Your task to perform on an android device: What's the weather going to be this weekend? Image 0: 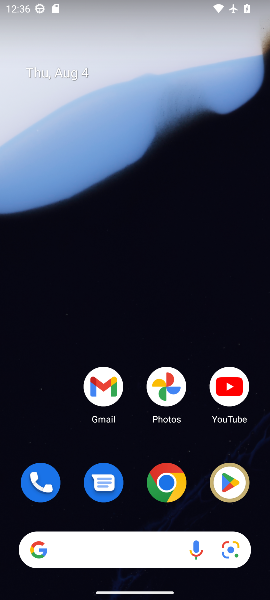
Step 0: drag from (133, 453) to (133, 74)
Your task to perform on an android device: What's the weather going to be this weekend? Image 1: 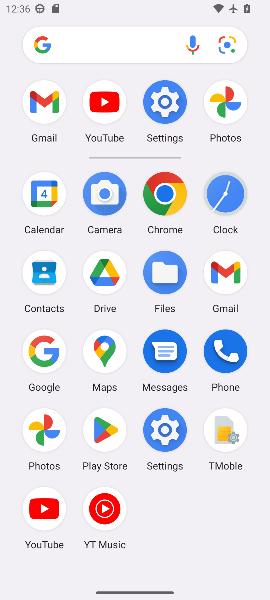
Step 1: click (49, 338)
Your task to perform on an android device: What's the weather going to be this weekend? Image 2: 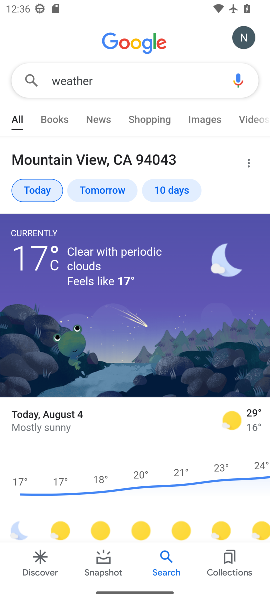
Step 2: click (166, 191)
Your task to perform on an android device: What's the weather going to be this weekend? Image 3: 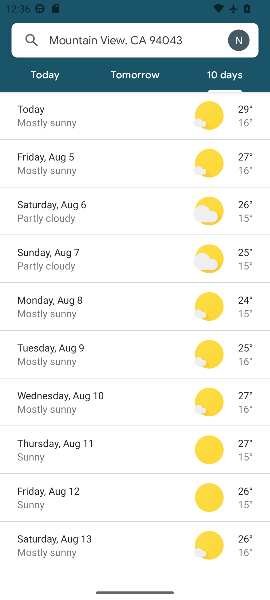
Step 3: task complete